Your task to perform on an android device: Open display settings Image 0: 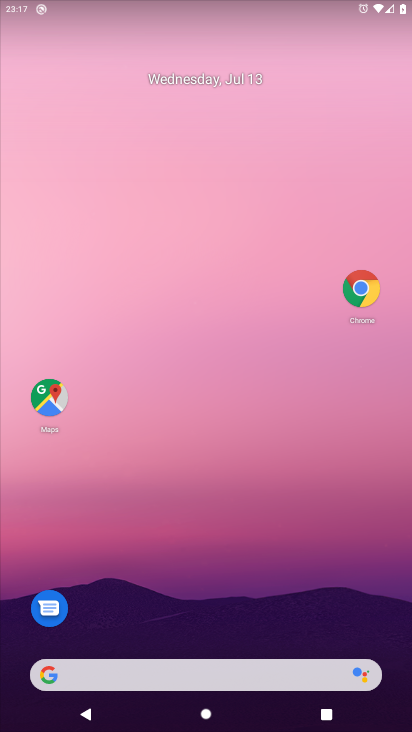
Step 0: drag from (63, 658) to (239, 181)
Your task to perform on an android device: Open display settings Image 1: 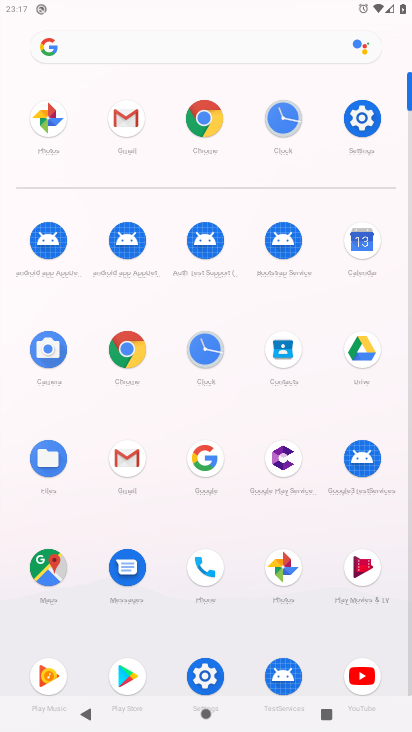
Step 1: click (190, 681)
Your task to perform on an android device: Open display settings Image 2: 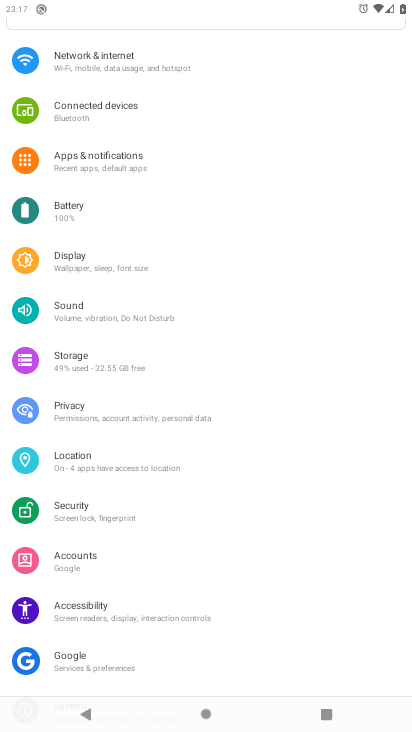
Step 2: click (105, 257)
Your task to perform on an android device: Open display settings Image 3: 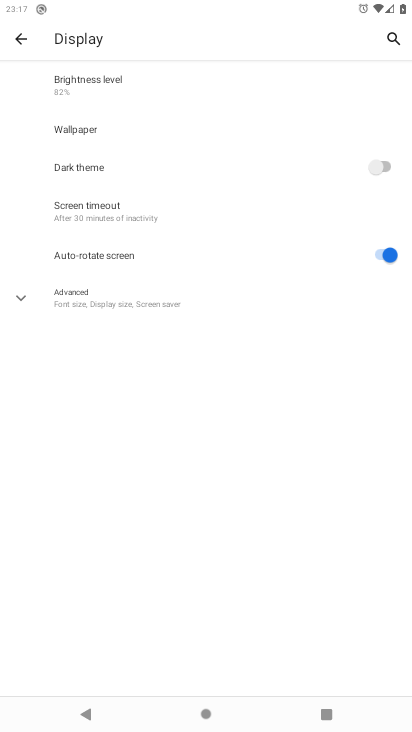
Step 3: task complete